Your task to perform on an android device: toggle wifi Image 0: 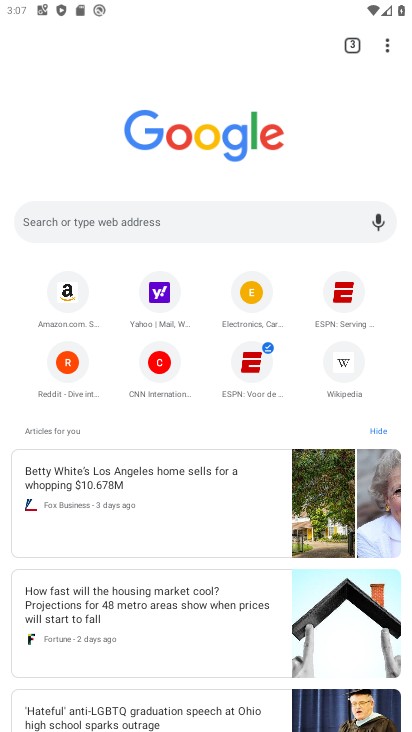
Step 0: press back button
Your task to perform on an android device: toggle wifi Image 1: 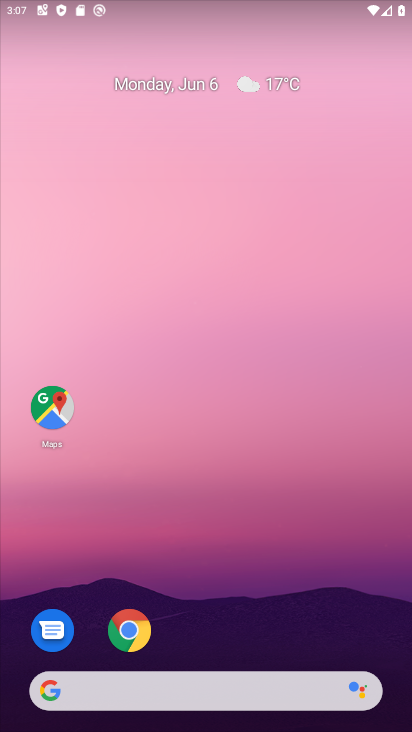
Step 1: drag from (82, 8) to (179, 464)
Your task to perform on an android device: toggle wifi Image 2: 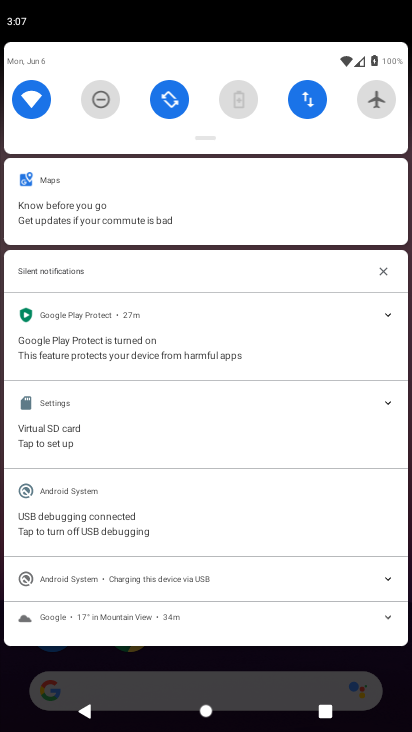
Step 2: click (26, 95)
Your task to perform on an android device: toggle wifi Image 3: 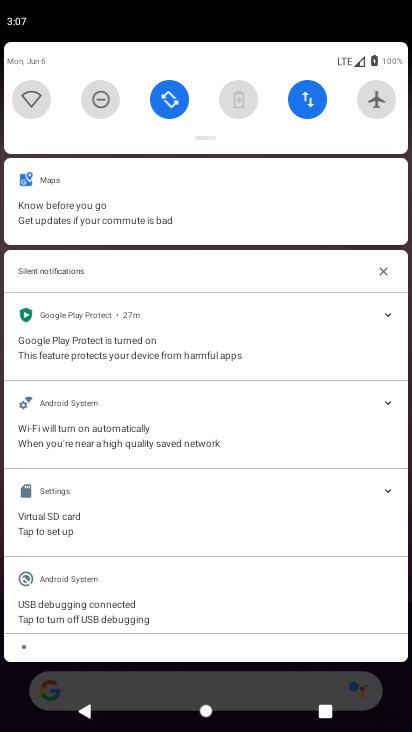
Step 3: task complete